Your task to perform on an android device: turn on location history Image 0: 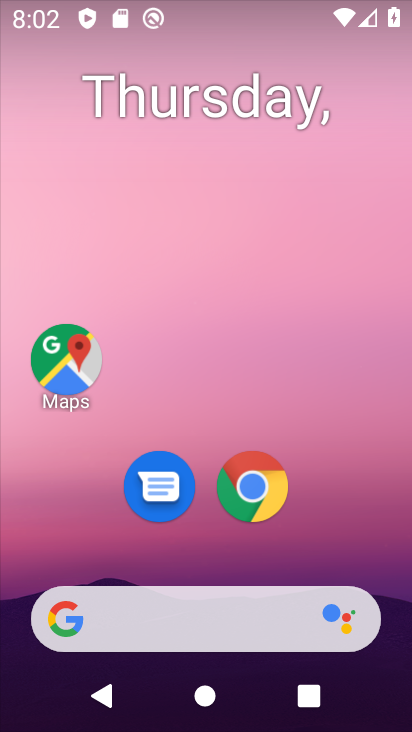
Step 0: drag from (238, 622) to (286, 217)
Your task to perform on an android device: turn on location history Image 1: 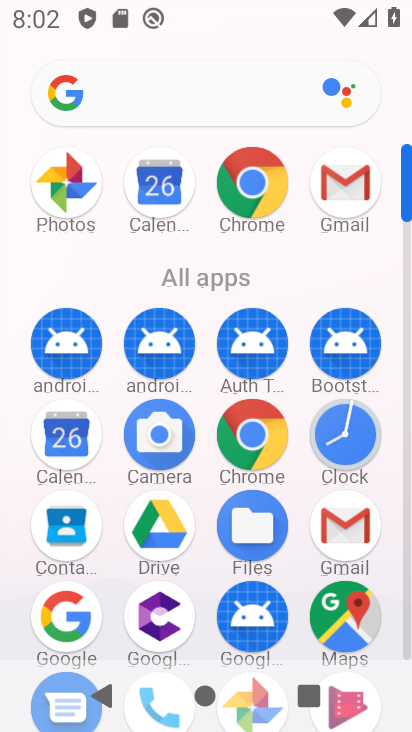
Step 1: drag from (285, 521) to (336, 178)
Your task to perform on an android device: turn on location history Image 2: 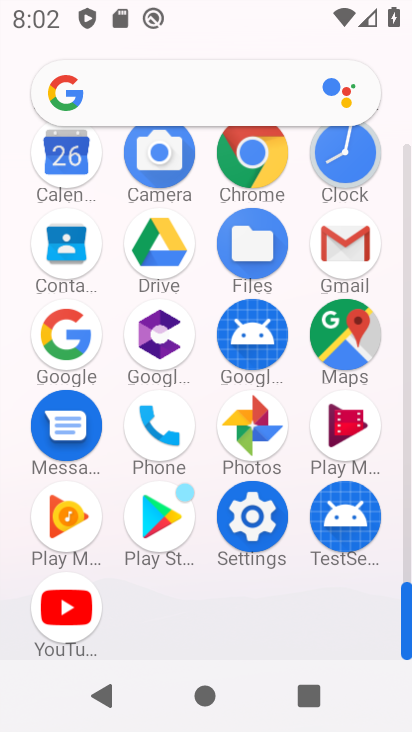
Step 2: click (267, 533)
Your task to perform on an android device: turn on location history Image 3: 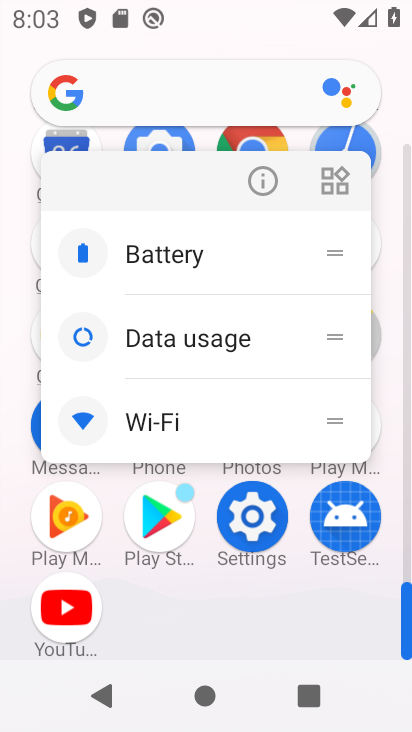
Step 3: click (278, 535)
Your task to perform on an android device: turn on location history Image 4: 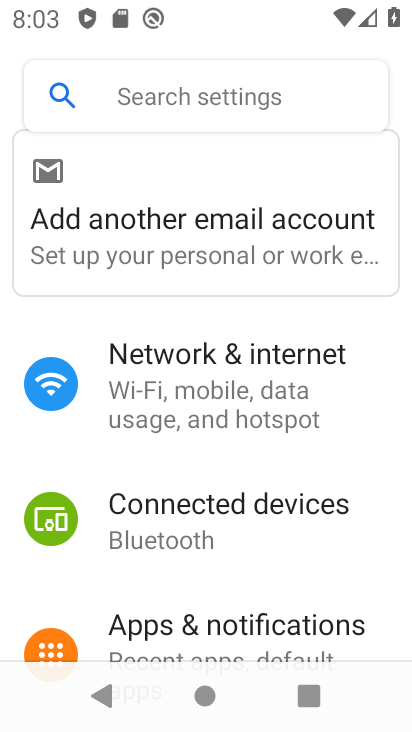
Step 4: drag from (251, 524) to (306, 140)
Your task to perform on an android device: turn on location history Image 5: 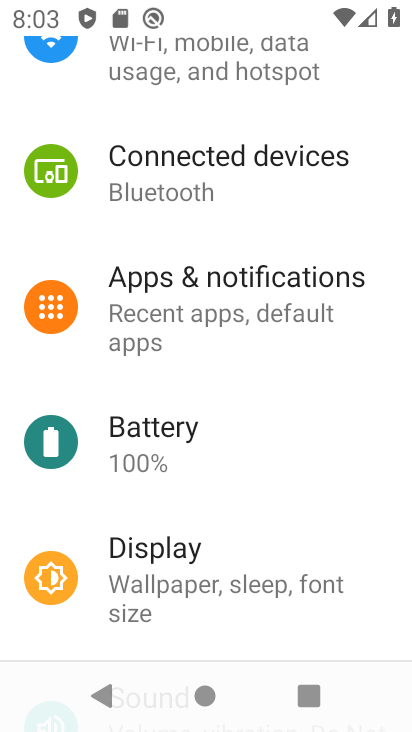
Step 5: drag from (234, 482) to (364, 78)
Your task to perform on an android device: turn on location history Image 6: 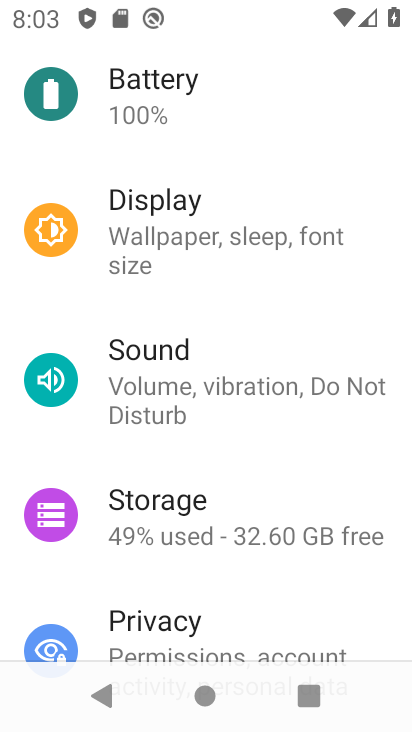
Step 6: drag from (165, 593) to (239, 294)
Your task to perform on an android device: turn on location history Image 7: 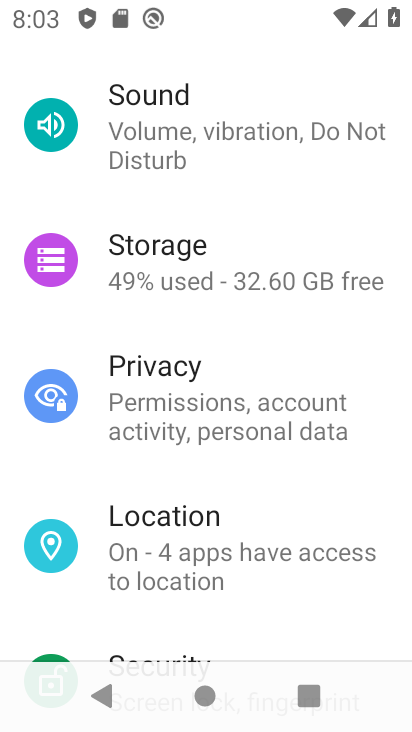
Step 7: click (240, 521)
Your task to perform on an android device: turn on location history Image 8: 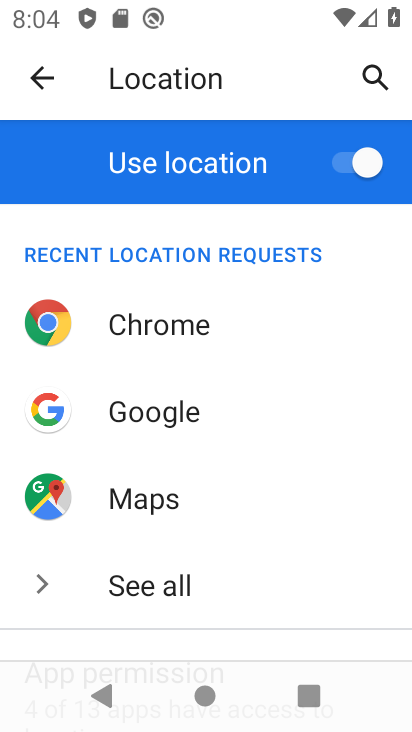
Step 8: drag from (249, 570) to (346, 207)
Your task to perform on an android device: turn on location history Image 9: 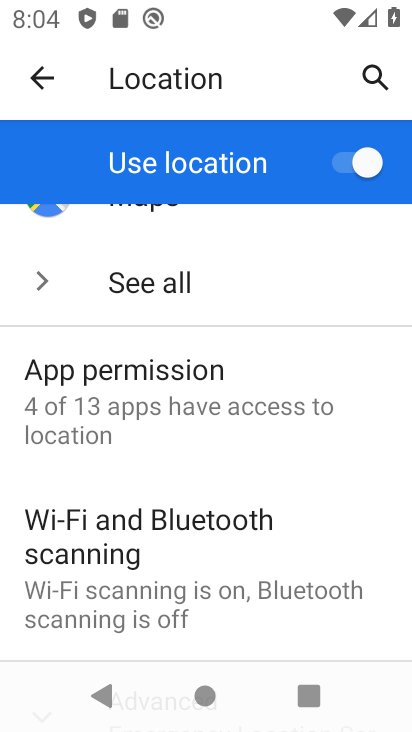
Step 9: drag from (194, 584) to (271, 168)
Your task to perform on an android device: turn on location history Image 10: 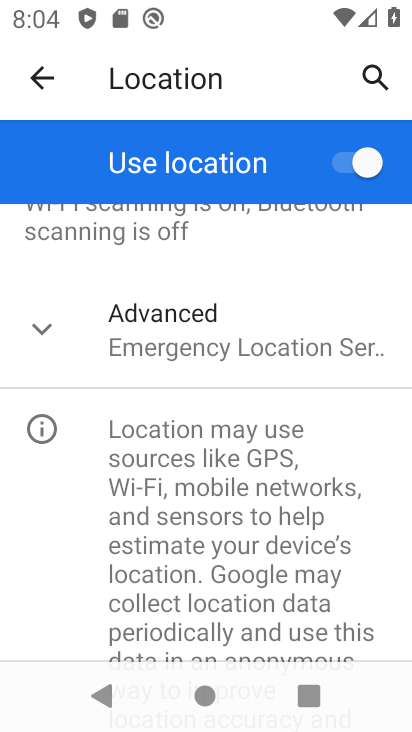
Step 10: click (211, 357)
Your task to perform on an android device: turn on location history Image 11: 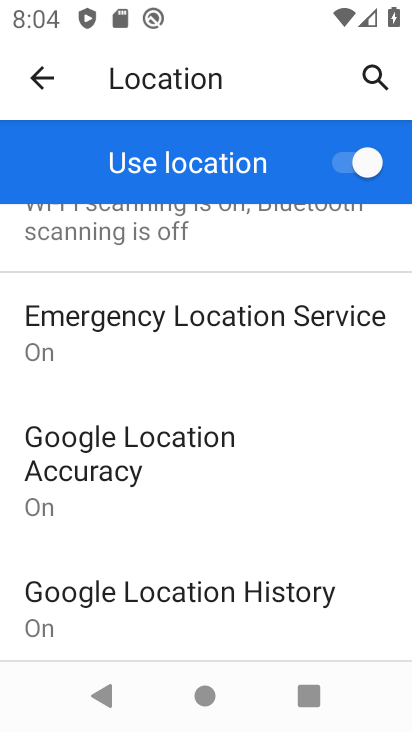
Step 11: click (276, 593)
Your task to perform on an android device: turn on location history Image 12: 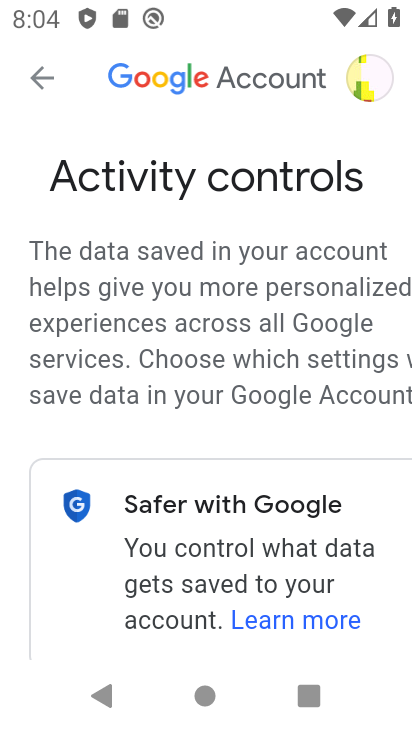
Step 12: task complete